Your task to perform on an android device: Go to Google maps Image 0: 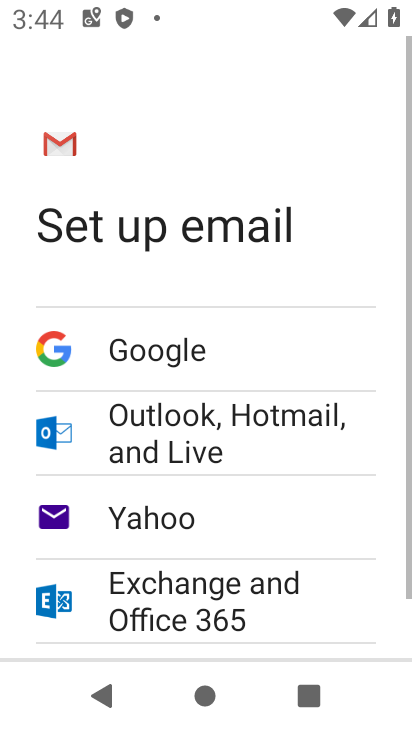
Step 0: press back button
Your task to perform on an android device: Go to Google maps Image 1: 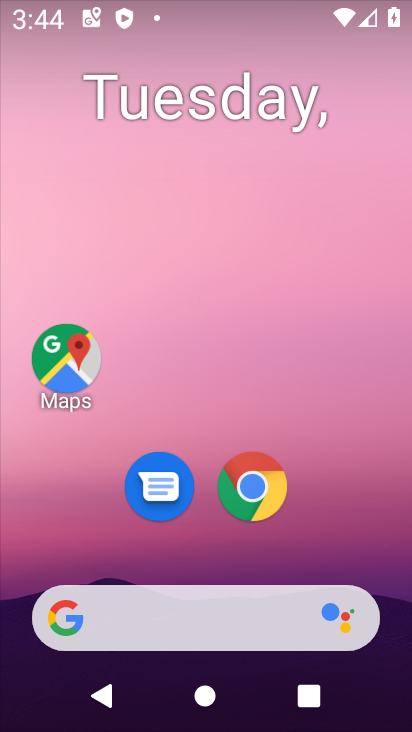
Step 1: click (55, 359)
Your task to perform on an android device: Go to Google maps Image 2: 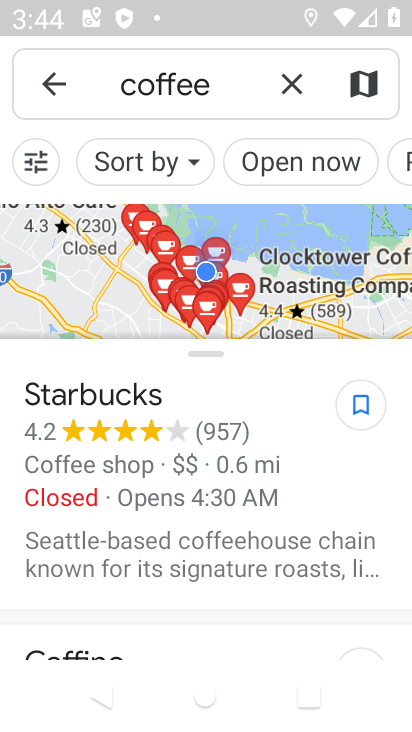
Step 2: task complete